Your task to perform on an android device: turn off priority inbox in the gmail app Image 0: 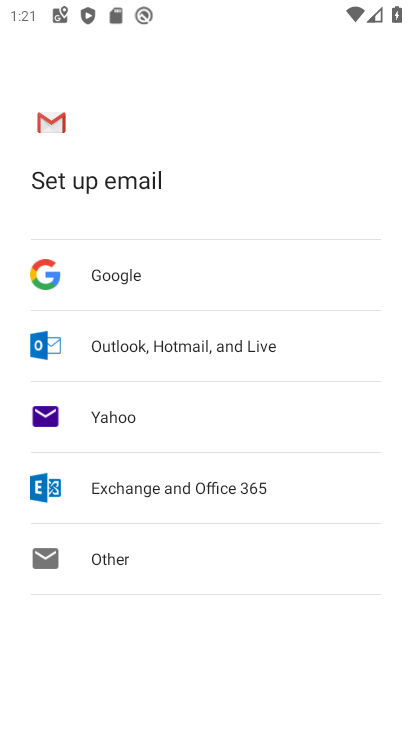
Step 0: press home button
Your task to perform on an android device: turn off priority inbox in the gmail app Image 1: 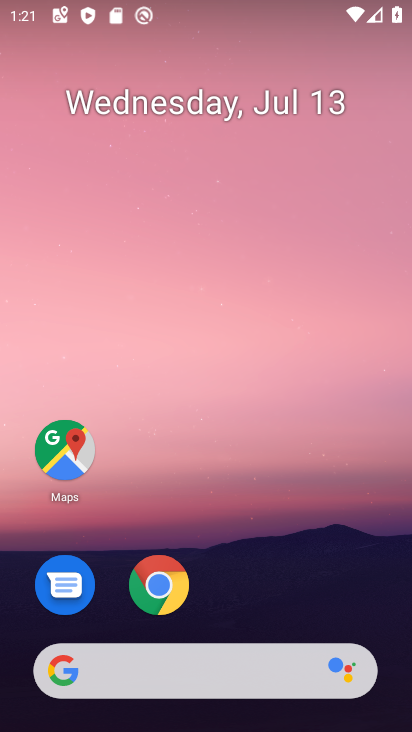
Step 1: drag from (141, 682) to (263, 230)
Your task to perform on an android device: turn off priority inbox in the gmail app Image 2: 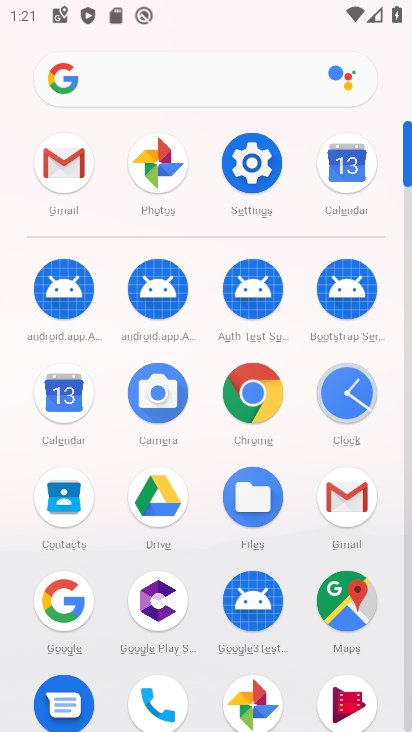
Step 2: click (63, 175)
Your task to perform on an android device: turn off priority inbox in the gmail app Image 3: 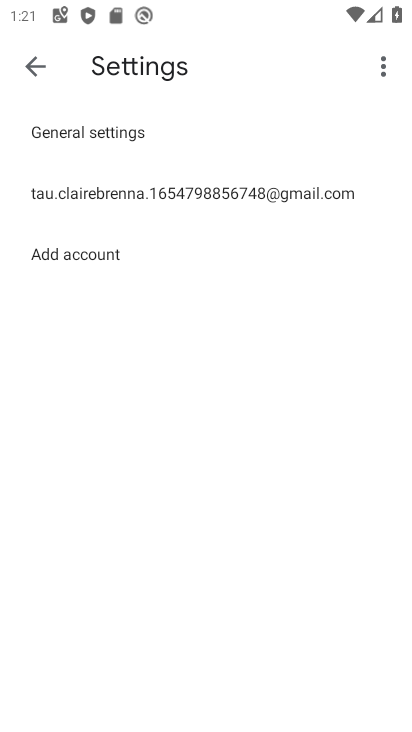
Step 3: click (161, 200)
Your task to perform on an android device: turn off priority inbox in the gmail app Image 4: 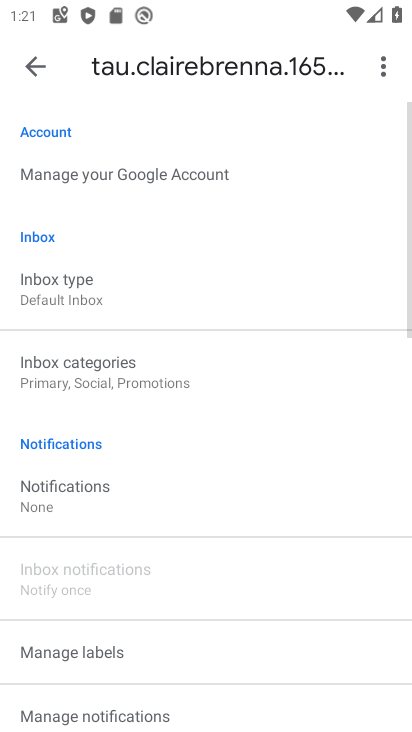
Step 4: click (75, 289)
Your task to perform on an android device: turn off priority inbox in the gmail app Image 5: 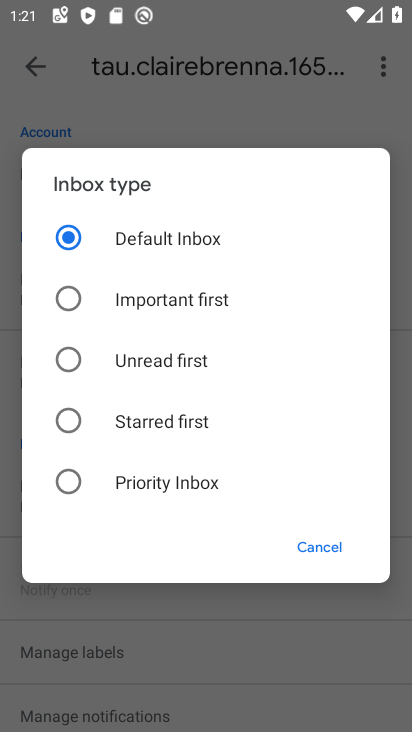
Step 5: task complete